Your task to perform on an android device: Open the phone app and click the voicemail tab. Image 0: 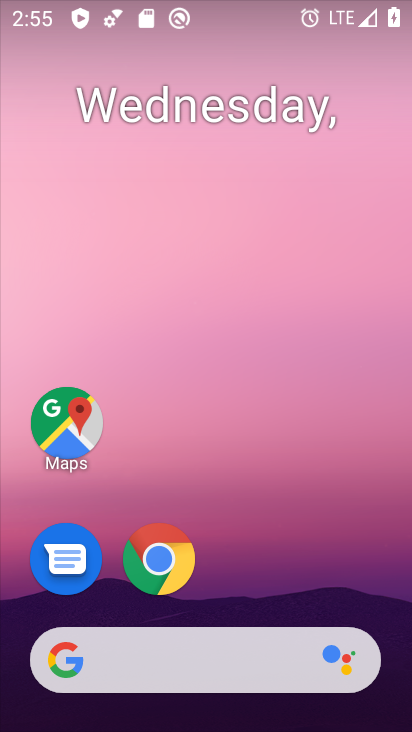
Step 0: drag from (275, 540) to (316, 69)
Your task to perform on an android device: Open the phone app and click the voicemail tab. Image 1: 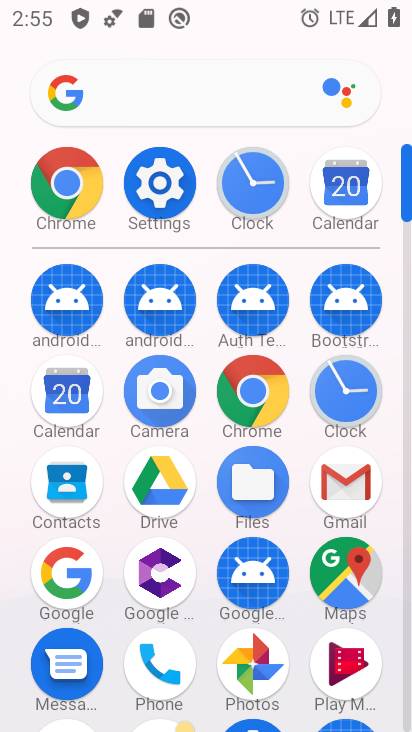
Step 1: click (157, 673)
Your task to perform on an android device: Open the phone app and click the voicemail tab. Image 2: 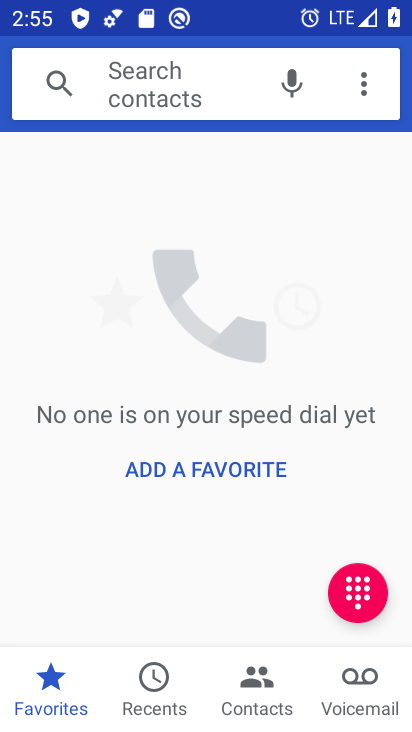
Step 2: click (349, 690)
Your task to perform on an android device: Open the phone app and click the voicemail tab. Image 3: 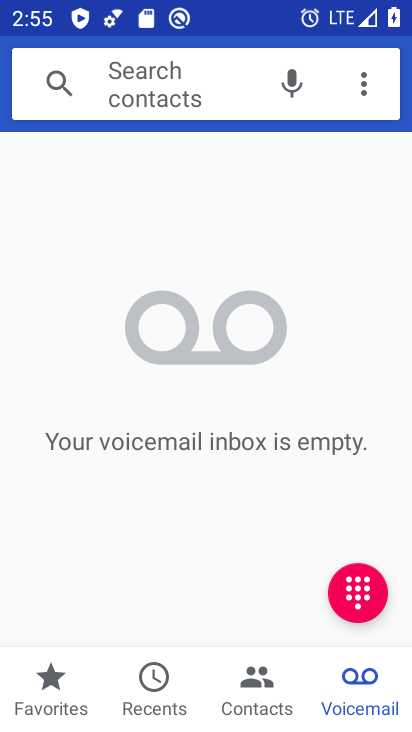
Step 3: task complete